Your task to perform on an android device: all mails in gmail Image 0: 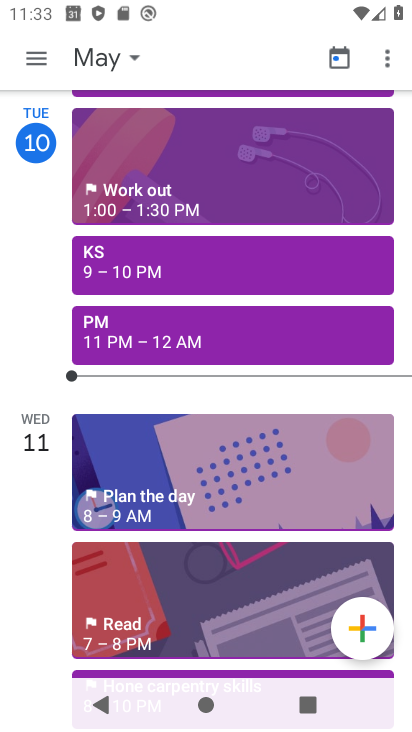
Step 0: press home button
Your task to perform on an android device: all mails in gmail Image 1: 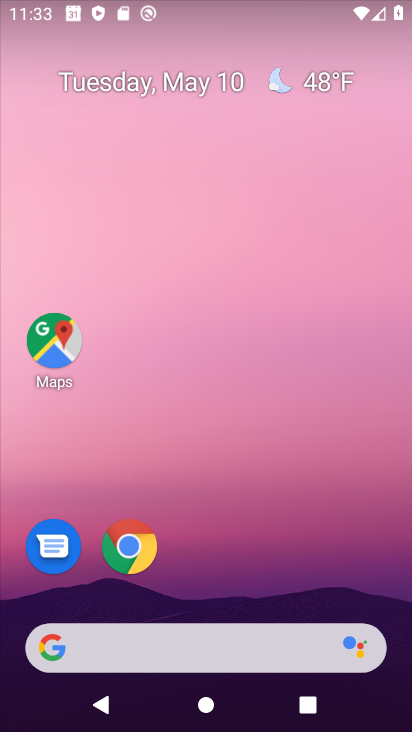
Step 1: drag from (252, 605) to (264, 217)
Your task to perform on an android device: all mails in gmail Image 2: 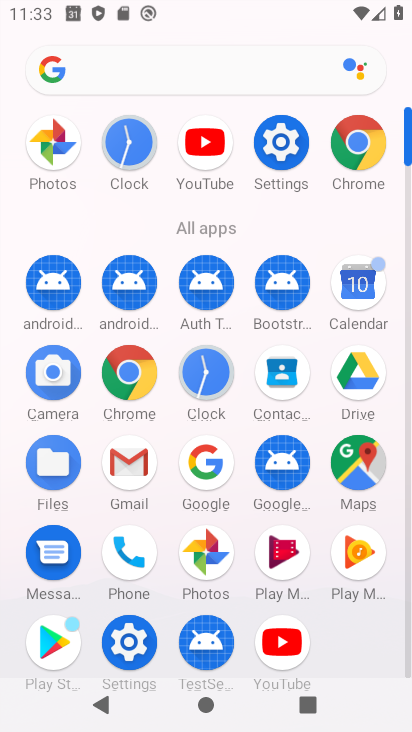
Step 2: click (113, 470)
Your task to perform on an android device: all mails in gmail Image 3: 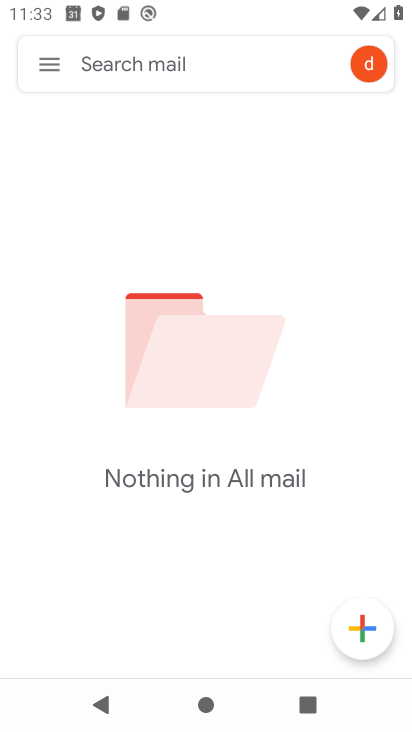
Step 3: click (62, 56)
Your task to perform on an android device: all mails in gmail Image 4: 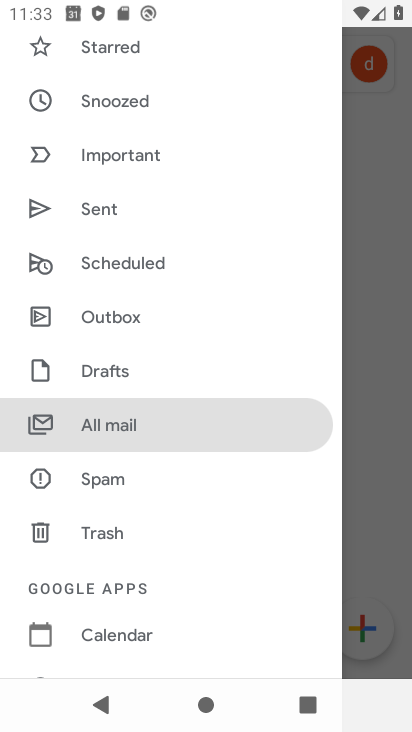
Step 4: click (150, 412)
Your task to perform on an android device: all mails in gmail Image 5: 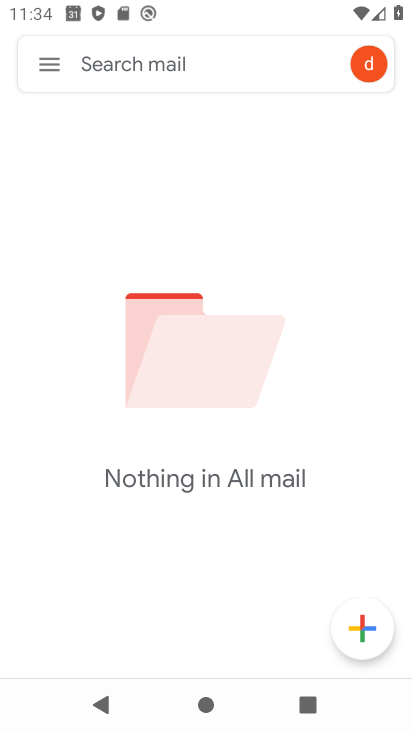
Step 5: task complete